Your task to perform on an android device: open device folders in google photos Image 0: 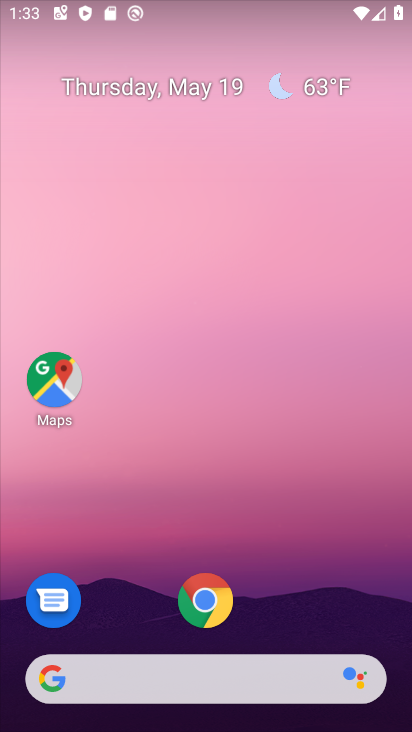
Step 0: drag from (331, 629) to (309, 0)
Your task to perform on an android device: open device folders in google photos Image 1: 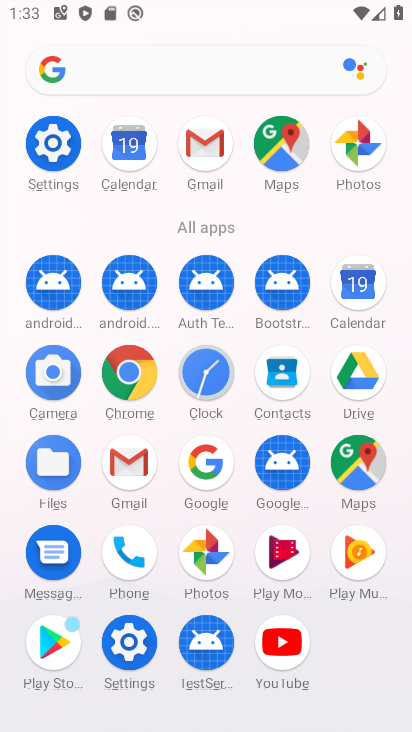
Step 1: click (196, 552)
Your task to perform on an android device: open device folders in google photos Image 2: 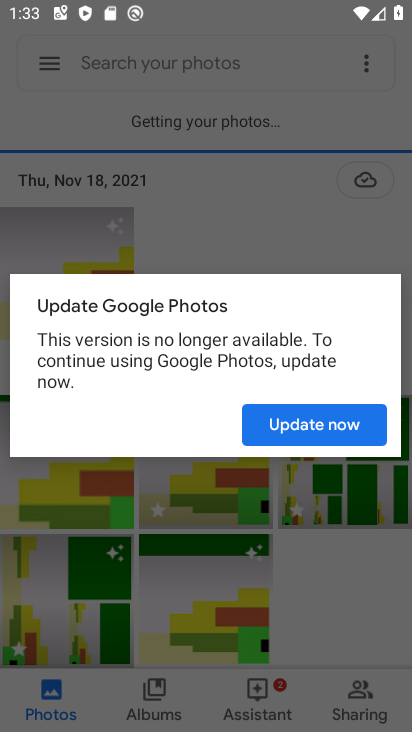
Step 2: click (369, 431)
Your task to perform on an android device: open device folders in google photos Image 3: 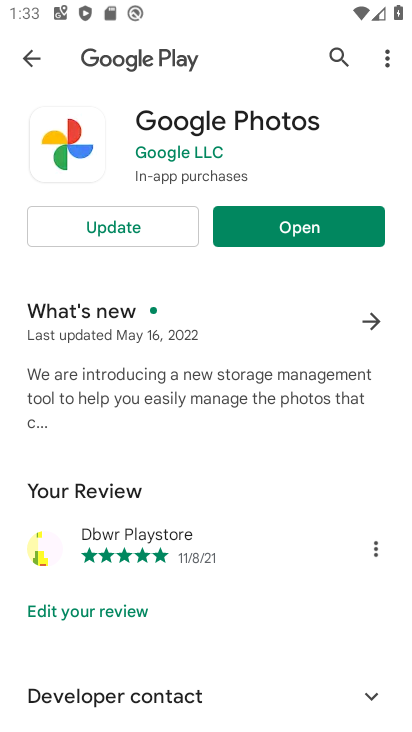
Step 3: click (350, 251)
Your task to perform on an android device: open device folders in google photos Image 4: 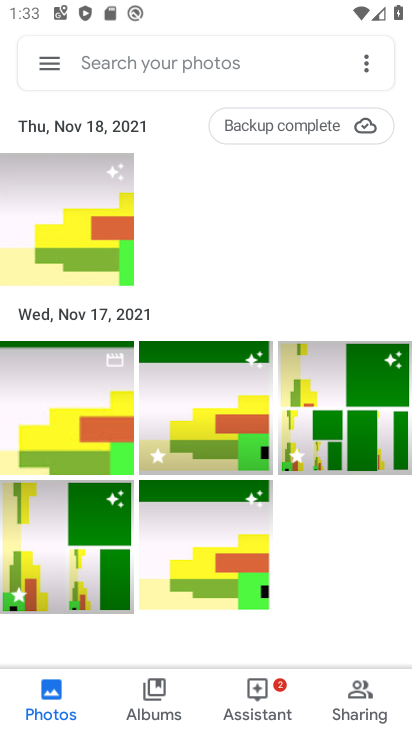
Step 4: click (52, 71)
Your task to perform on an android device: open device folders in google photos Image 5: 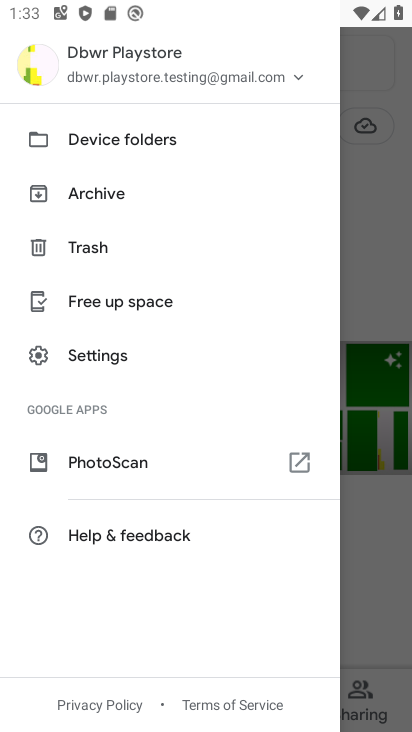
Step 5: click (117, 140)
Your task to perform on an android device: open device folders in google photos Image 6: 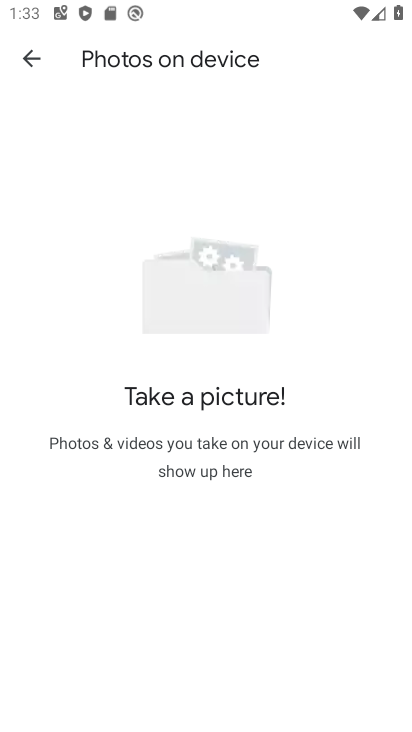
Step 6: task complete